Your task to perform on an android device: Open Chrome and go to settings Image 0: 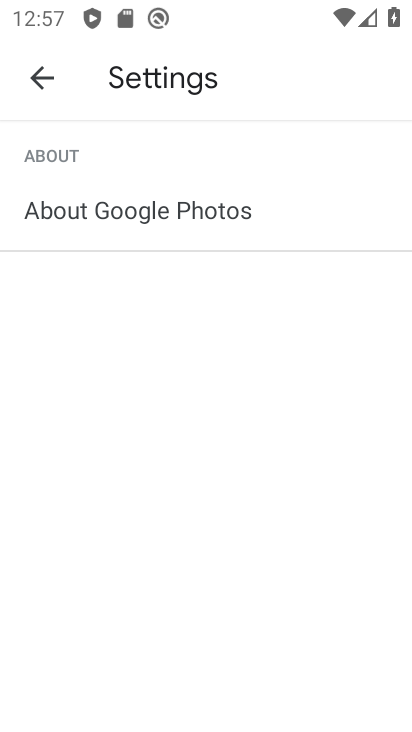
Step 0: press home button
Your task to perform on an android device: Open Chrome and go to settings Image 1: 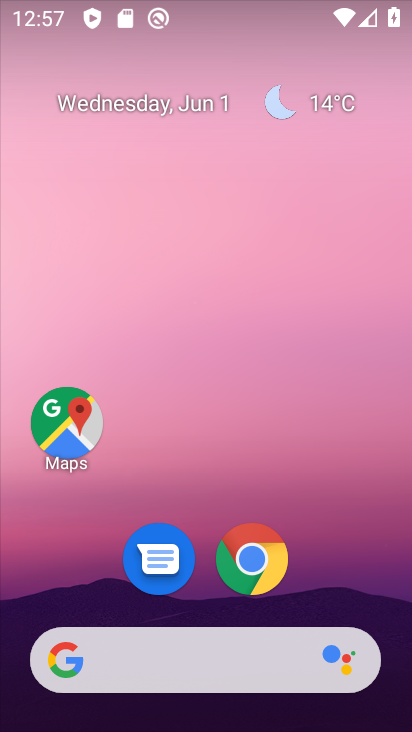
Step 1: click (247, 557)
Your task to perform on an android device: Open Chrome and go to settings Image 2: 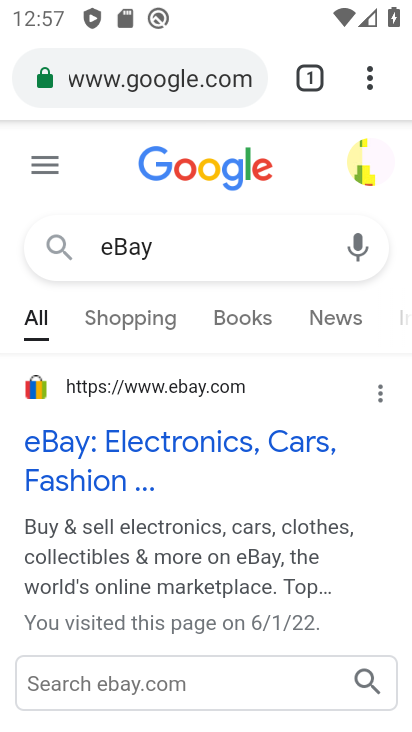
Step 2: click (373, 80)
Your task to perform on an android device: Open Chrome and go to settings Image 3: 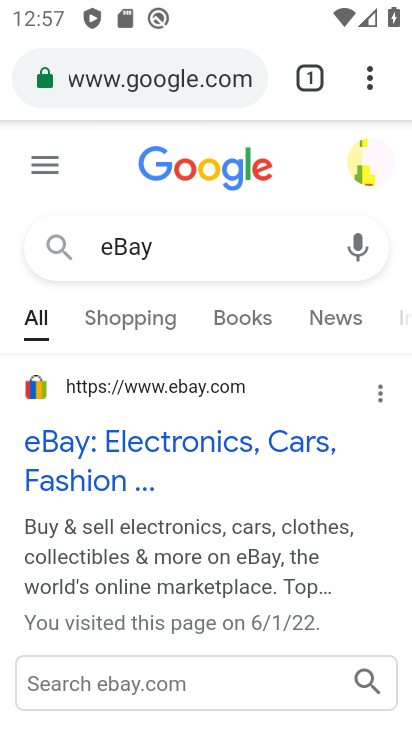
Step 3: click (365, 76)
Your task to perform on an android device: Open Chrome and go to settings Image 4: 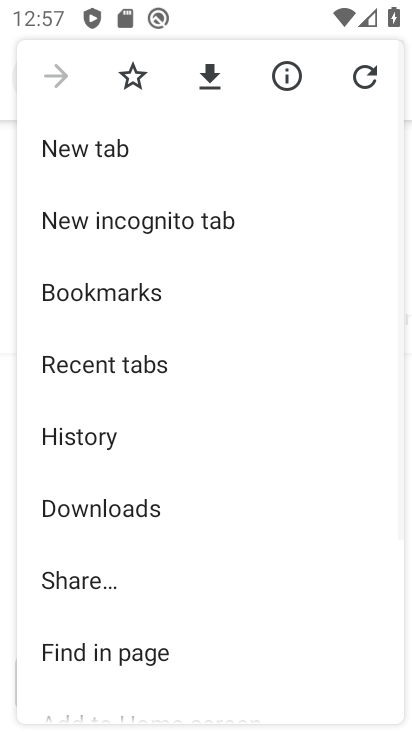
Step 4: drag from (234, 562) to (234, 339)
Your task to perform on an android device: Open Chrome and go to settings Image 5: 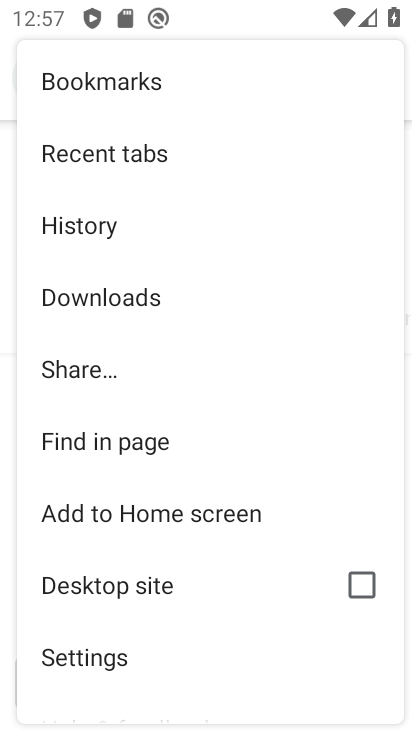
Step 5: click (95, 649)
Your task to perform on an android device: Open Chrome and go to settings Image 6: 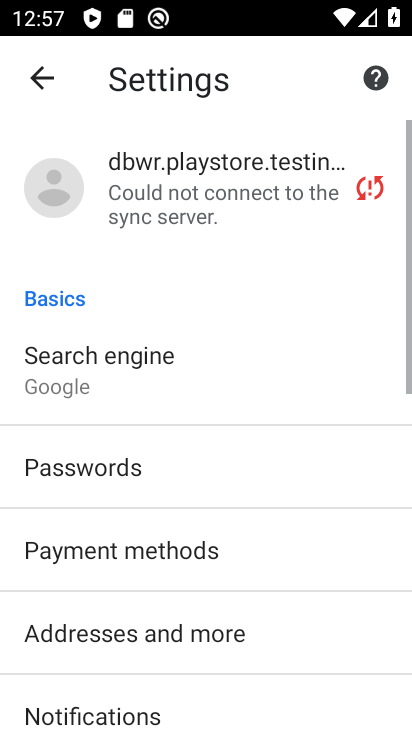
Step 6: task complete